Your task to perform on an android device: make emails show in primary in the gmail app Image 0: 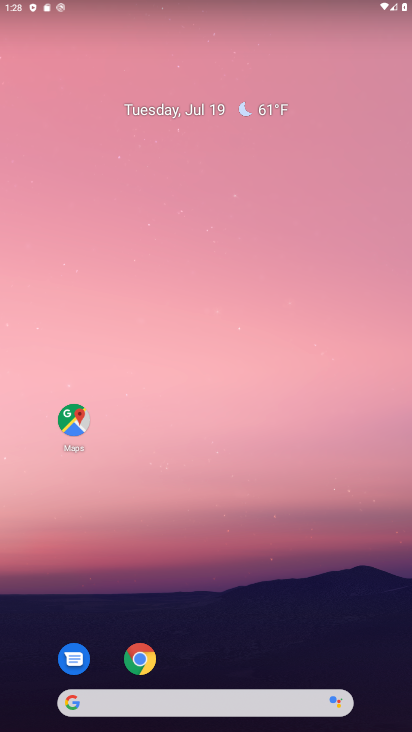
Step 0: drag from (304, 613) to (260, 2)
Your task to perform on an android device: make emails show in primary in the gmail app Image 1: 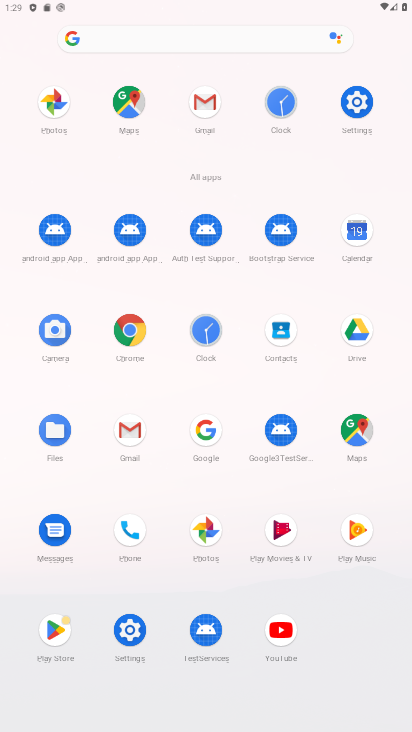
Step 1: click (134, 425)
Your task to perform on an android device: make emails show in primary in the gmail app Image 2: 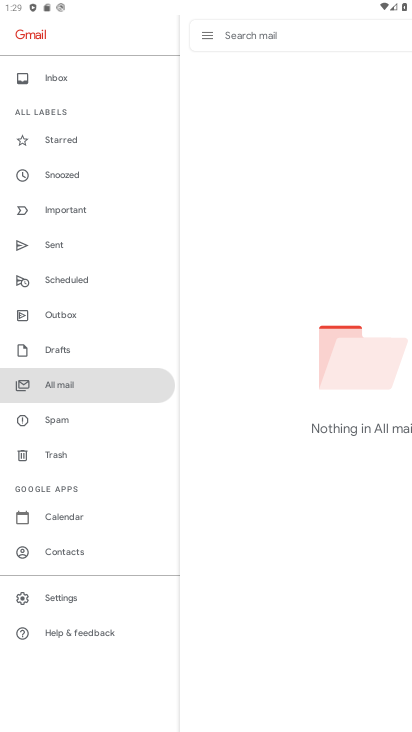
Step 2: click (56, 598)
Your task to perform on an android device: make emails show in primary in the gmail app Image 3: 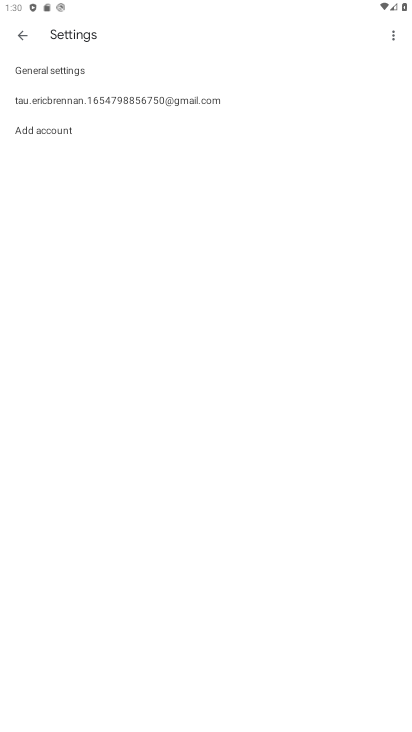
Step 3: click (65, 92)
Your task to perform on an android device: make emails show in primary in the gmail app Image 4: 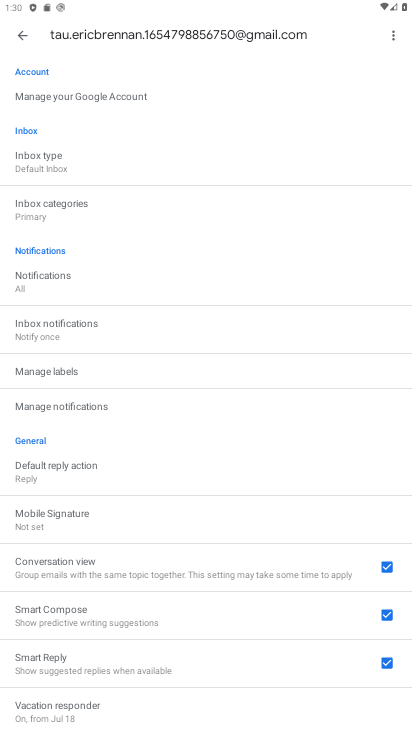
Step 4: task complete